Your task to perform on an android device: star an email in the gmail app Image 0: 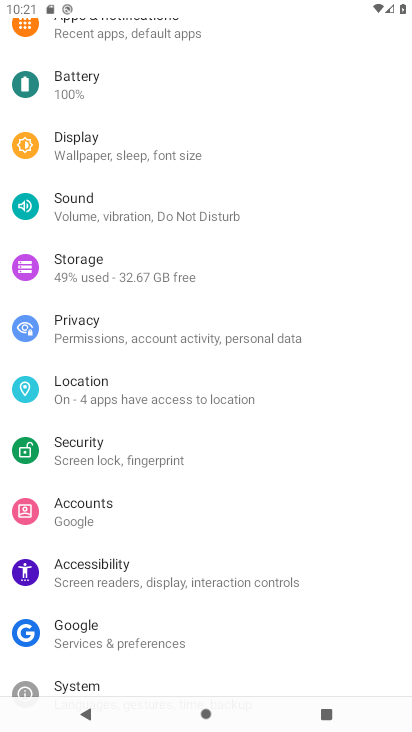
Step 0: press home button
Your task to perform on an android device: star an email in the gmail app Image 1: 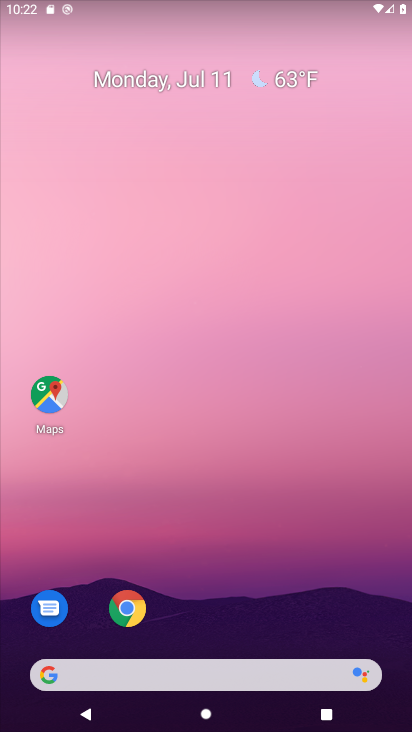
Step 1: drag from (280, 584) to (253, 9)
Your task to perform on an android device: star an email in the gmail app Image 2: 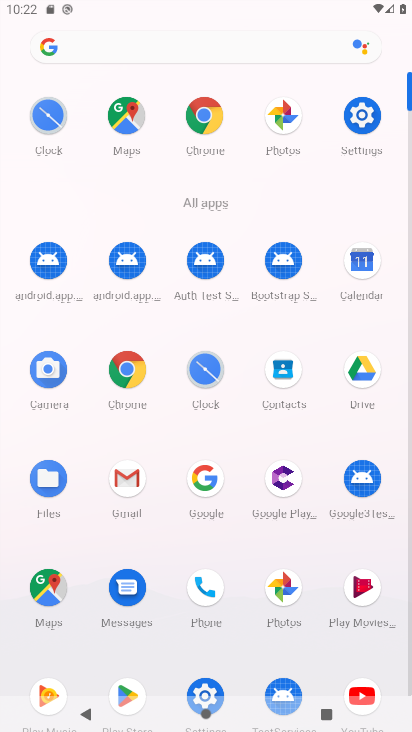
Step 2: click (124, 483)
Your task to perform on an android device: star an email in the gmail app Image 3: 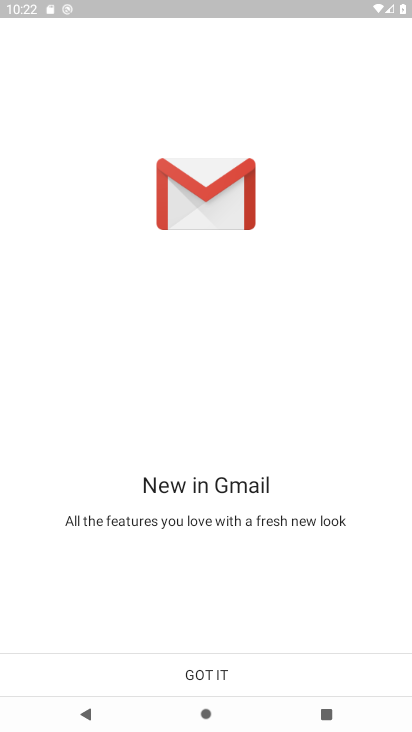
Step 3: click (238, 682)
Your task to perform on an android device: star an email in the gmail app Image 4: 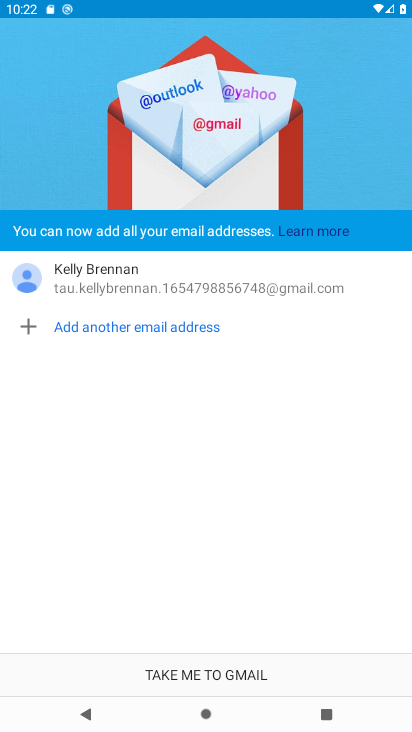
Step 4: click (241, 671)
Your task to perform on an android device: star an email in the gmail app Image 5: 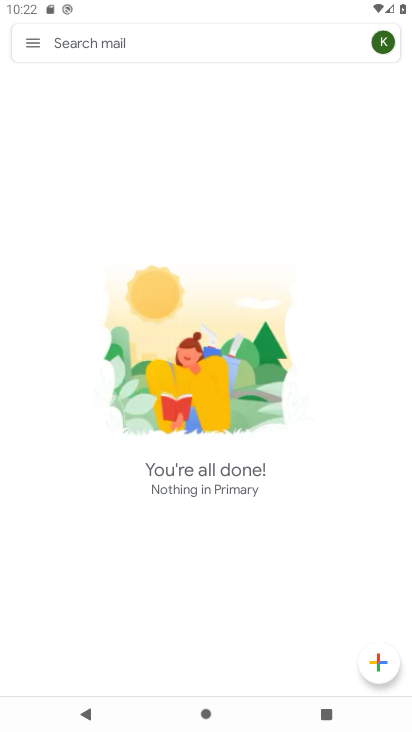
Step 5: click (24, 45)
Your task to perform on an android device: star an email in the gmail app Image 6: 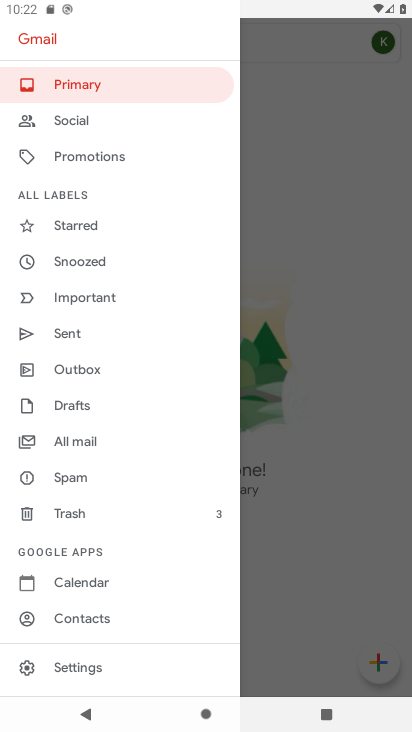
Step 6: click (71, 432)
Your task to perform on an android device: star an email in the gmail app Image 7: 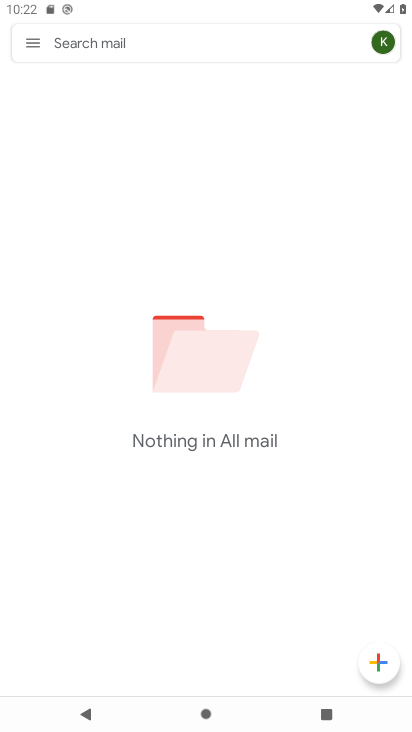
Step 7: task complete